Your task to perform on an android device: find photos in the google photos app Image 0: 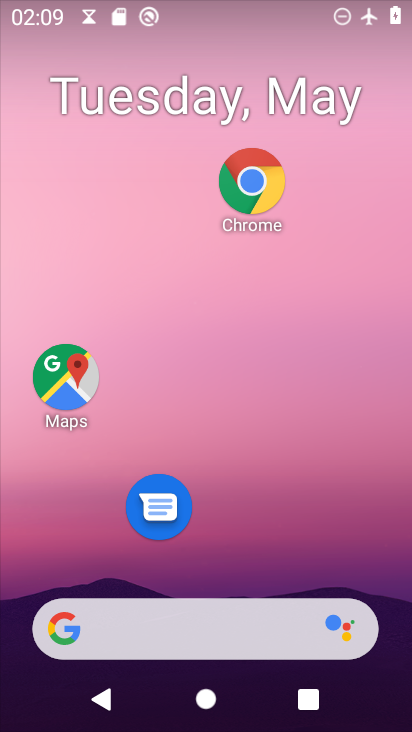
Step 0: drag from (313, 355) to (326, 261)
Your task to perform on an android device: find photos in the google photos app Image 1: 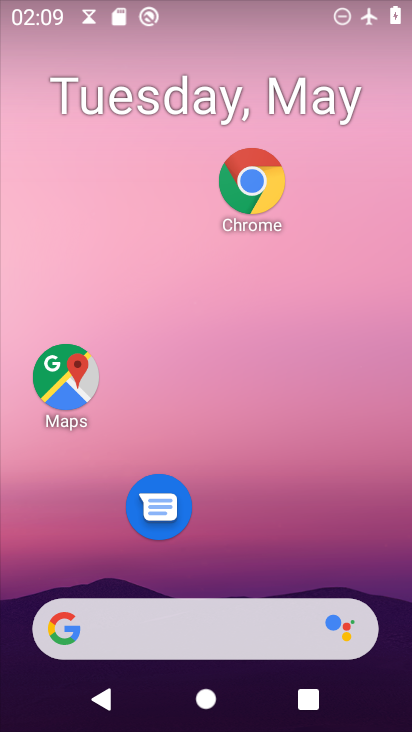
Step 1: drag from (260, 603) to (283, 235)
Your task to perform on an android device: find photos in the google photos app Image 2: 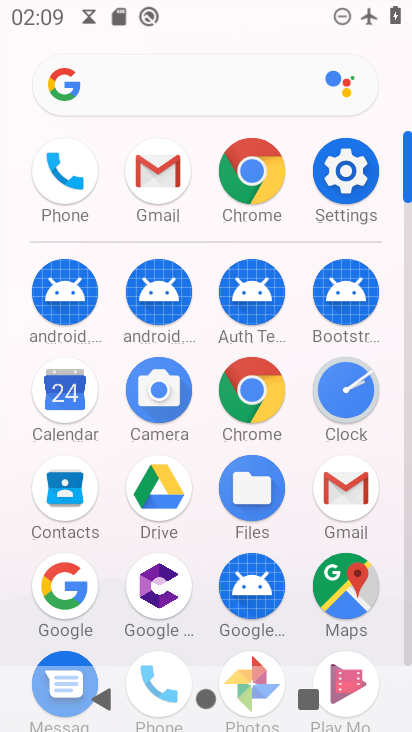
Step 2: drag from (209, 609) to (232, 373)
Your task to perform on an android device: find photos in the google photos app Image 3: 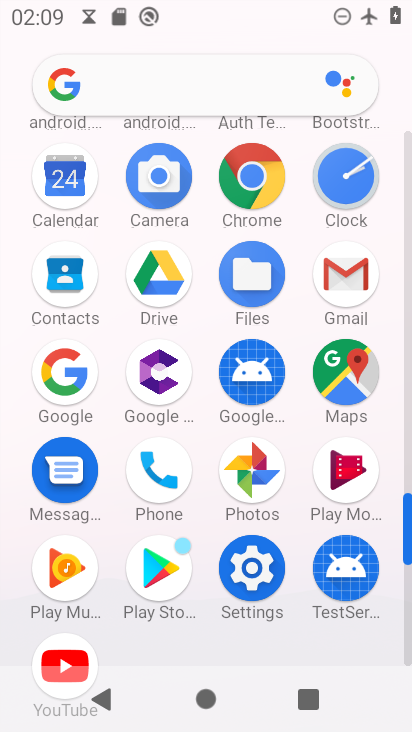
Step 3: click (241, 478)
Your task to perform on an android device: find photos in the google photos app Image 4: 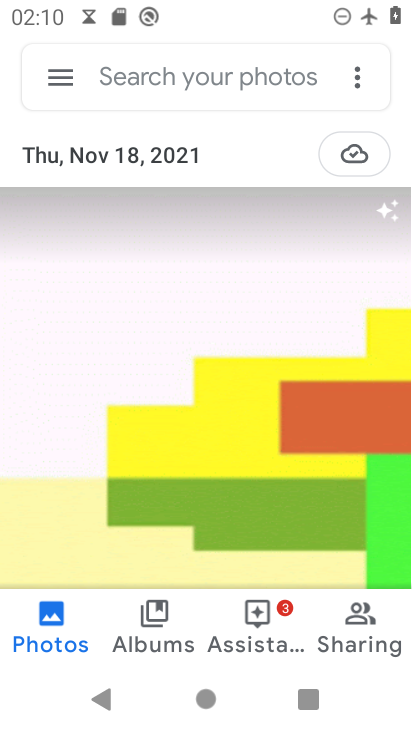
Step 4: task complete